Your task to perform on an android device: Search for sushi restaurants on Maps Image 0: 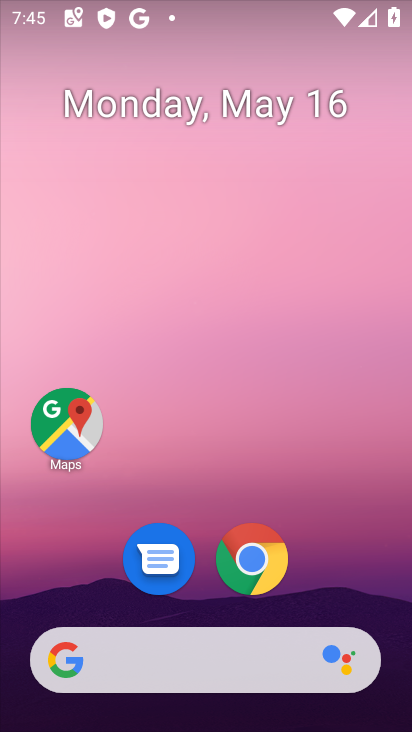
Step 0: drag from (336, 509) to (368, 101)
Your task to perform on an android device: Search for sushi restaurants on Maps Image 1: 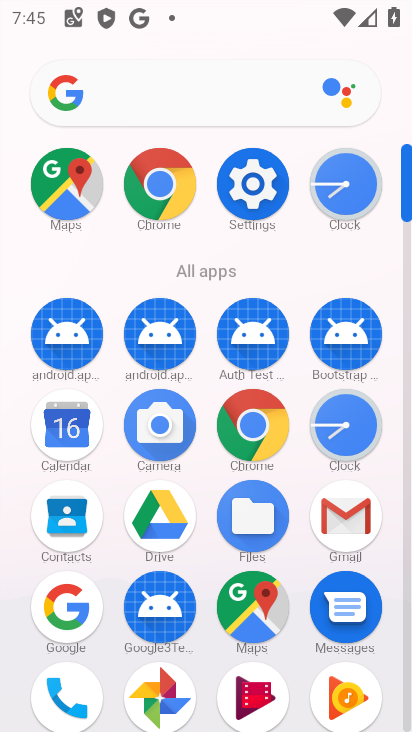
Step 1: click (240, 615)
Your task to perform on an android device: Search for sushi restaurants on Maps Image 2: 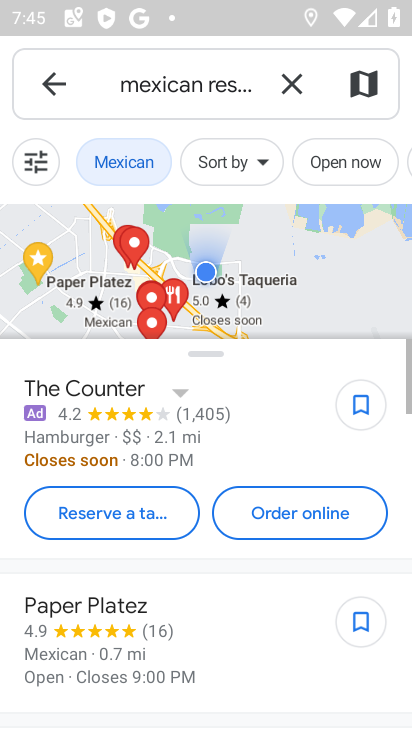
Step 2: click (305, 78)
Your task to perform on an android device: Search for sushi restaurants on Maps Image 3: 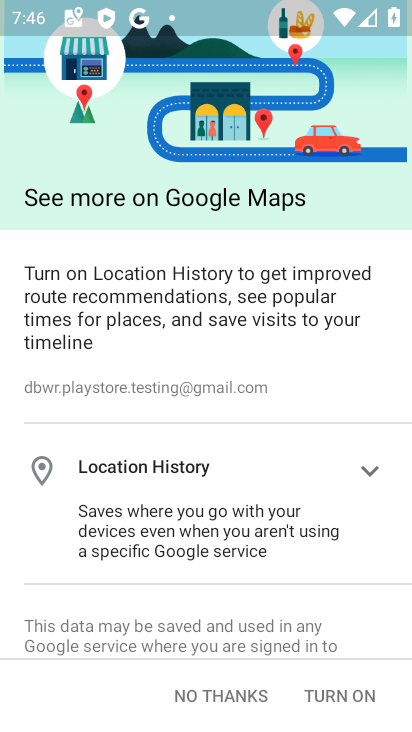
Step 3: click (187, 689)
Your task to perform on an android device: Search for sushi restaurants on Maps Image 4: 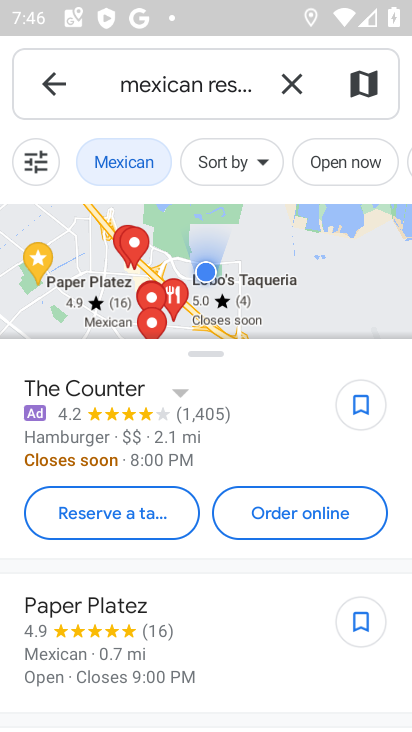
Step 4: click (298, 87)
Your task to perform on an android device: Search for sushi restaurants on Maps Image 5: 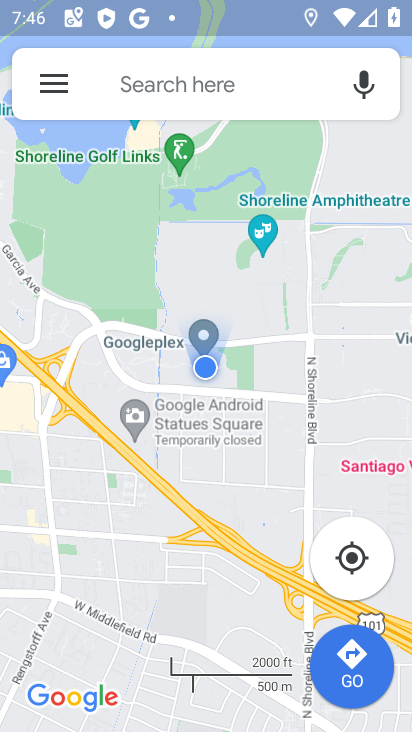
Step 5: click (222, 86)
Your task to perform on an android device: Search for sushi restaurants on Maps Image 6: 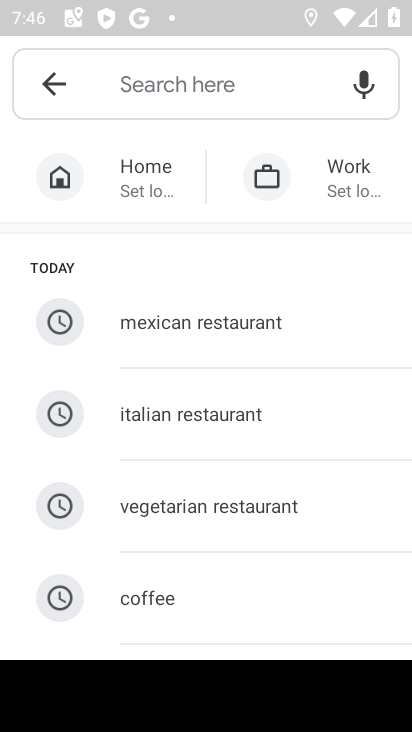
Step 6: type "sushi restaurants "
Your task to perform on an android device: Search for sushi restaurants on Maps Image 7: 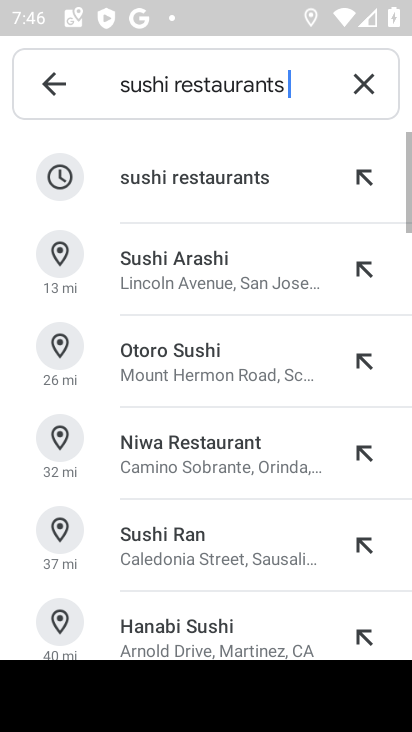
Step 7: click (213, 190)
Your task to perform on an android device: Search for sushi restaurants on Maps Image 8: 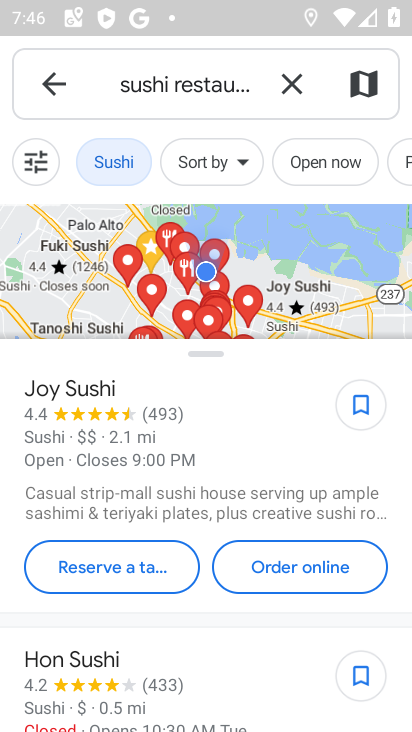
Step 8: task complete